Your task to perform on an android device: check battery use Image 0: 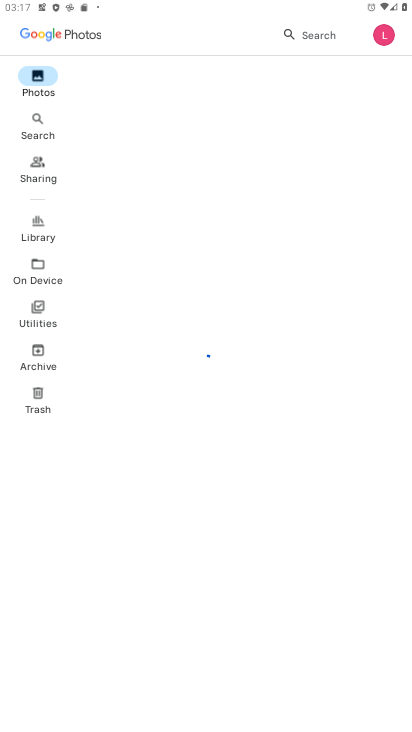
Step 0: press home button
Your task to perform on an android device: check battery use Image 1: 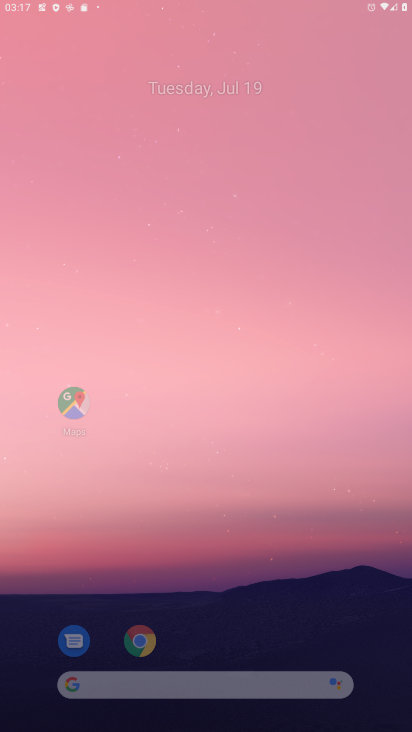
Step 1: drag from (281, 639) to (300, 115)
Your task to perform on an android device: check battery use Image 2: 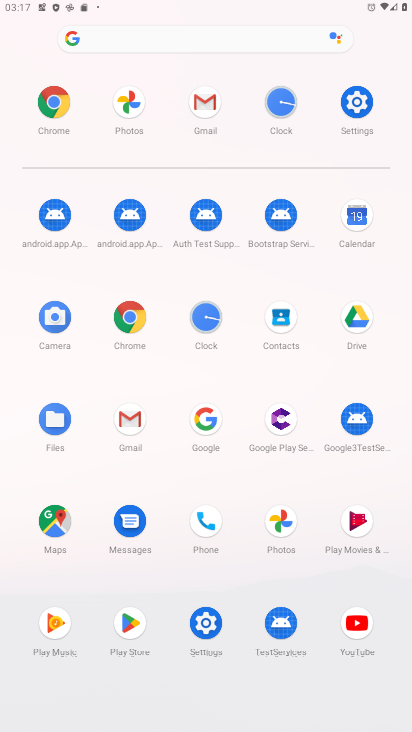
Step 2: click (213, 638)
Your task to perform on an android device: check battery use Image 3: 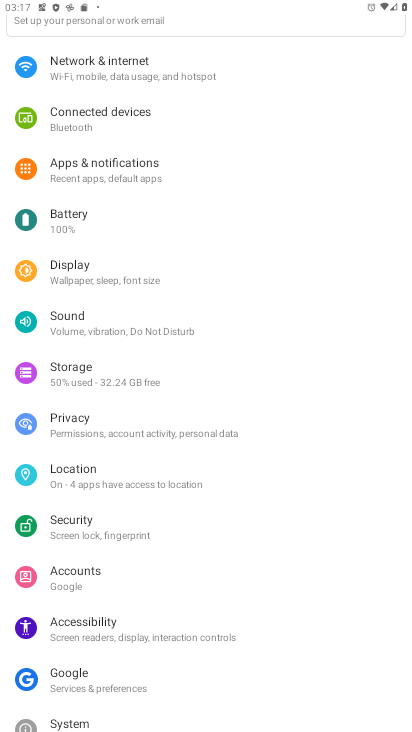
Step 3: click (74, 222)
Your task to perform on an android device: check battery use Image 4: 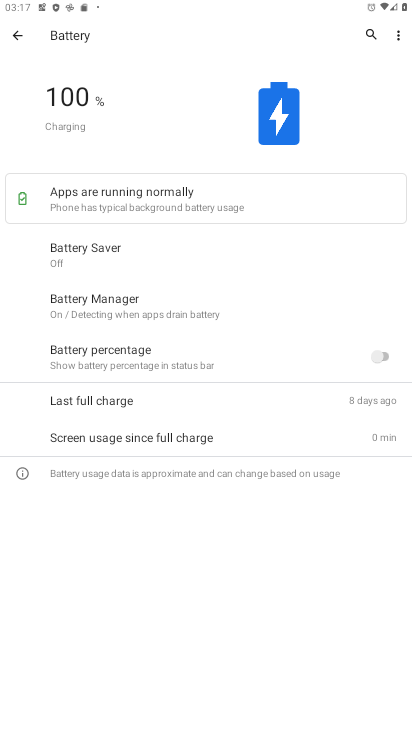
Step 4: task complete